Your task to perform on an android device: Open Youtube and go to "Your channel" Image 0: 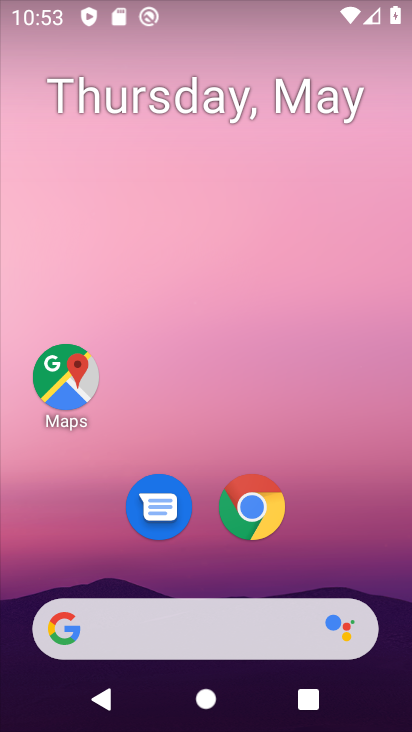
Step 0: drag from (209, 568) to (271, 0)
Your task to perform on an android device: Open Youtube and go to "Your channel" Image 1: 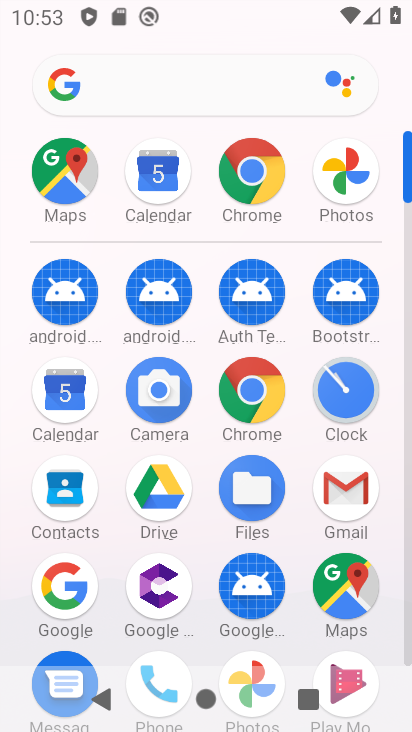
Step 1: drag from (194, 498) to (204, 332)
Your task to perform on an android device: Open Youtube and go to "Your channel" Image 2: 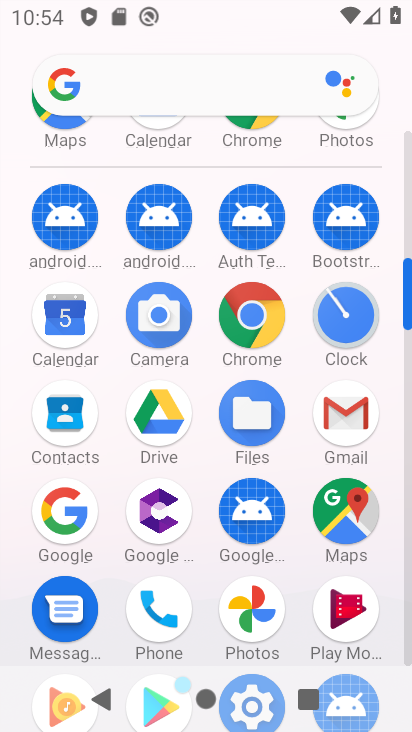
Step 2: drag from (273, 319) to (302, 124)
Your task to perform on an android device: Open Youtube and go to "Your channel" Image 3: 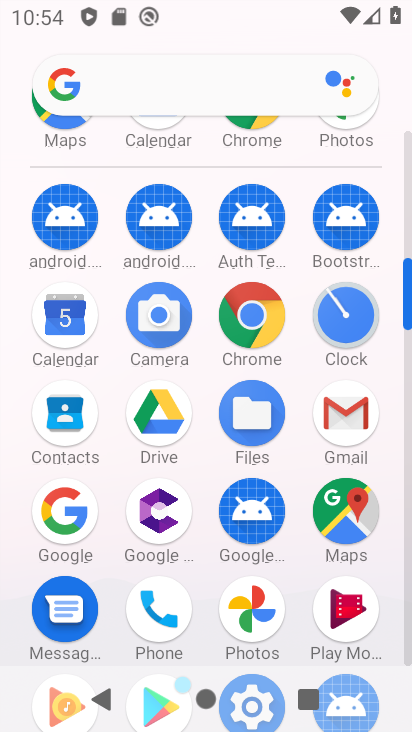
Step 3: drag from (210, 577) to (273, 16)
Your task to perform on an android device: Open Youtube and go to "Your channel" Image 4: 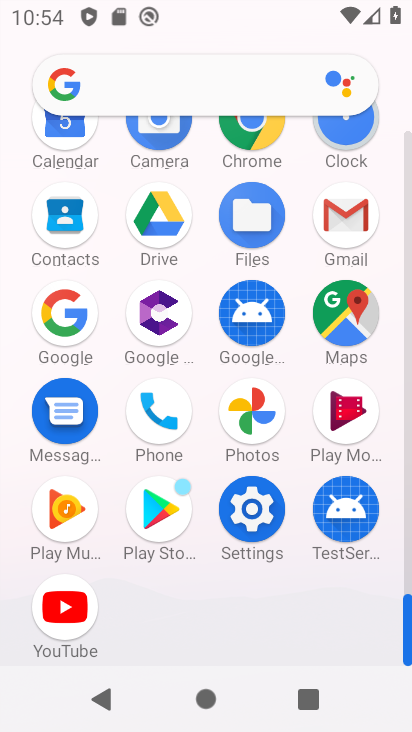
Step 4: click (64, 612)
Your task to perform on an android device: Open Youtube and go to "Your channel" Image 5: 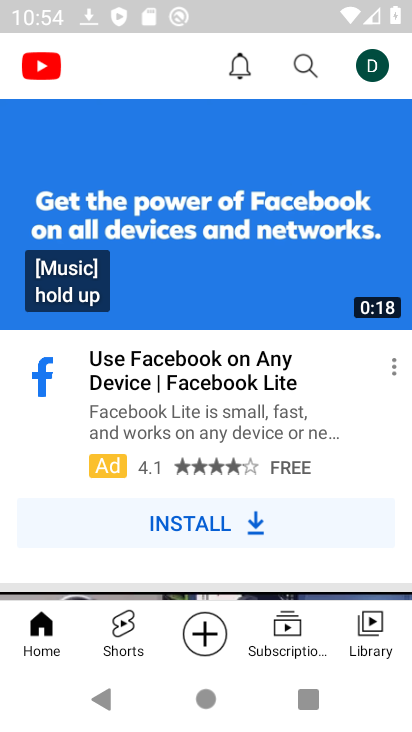
Step 5: click (369, 66)
Your task to perform on an android device: Open Youtube and go to "Your channel" Image 6: 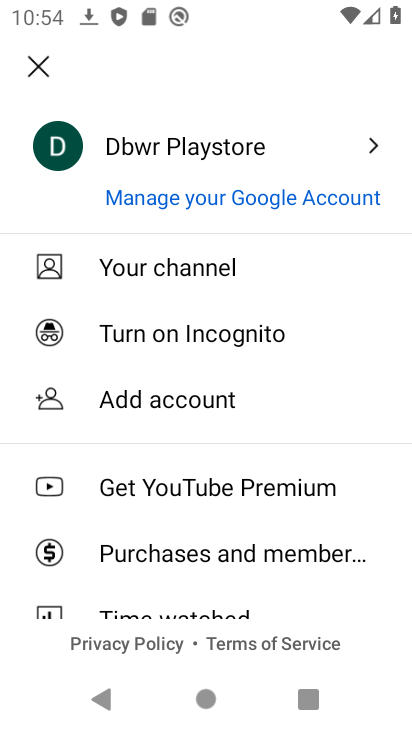
Step 6: click (167, 269)
Your task to perform on an android device: Open Youtube and go to "Your channel" Image 7: 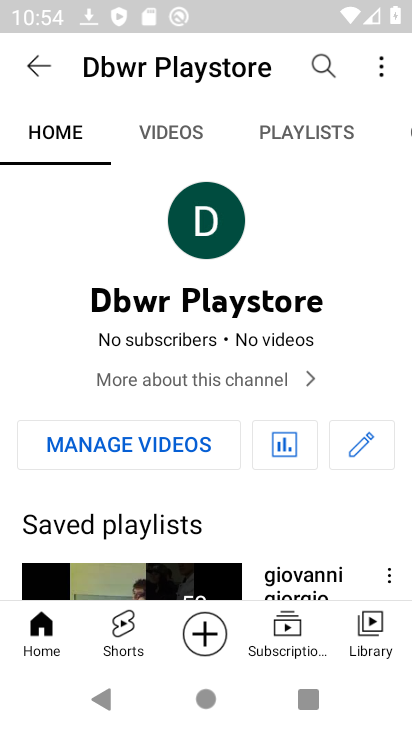
Step 7: task complete